Your task to perform on an android device: set default search engine in the chrome app Image 0: 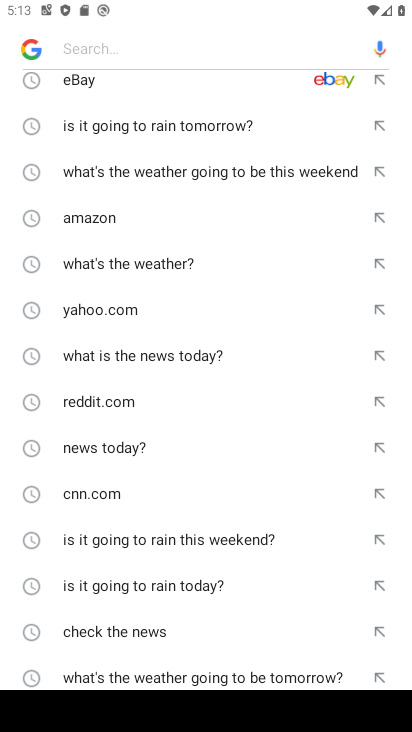
Step 0: press home button
Your task to perform on an android device: set default search engine in the chrome app Image 1: 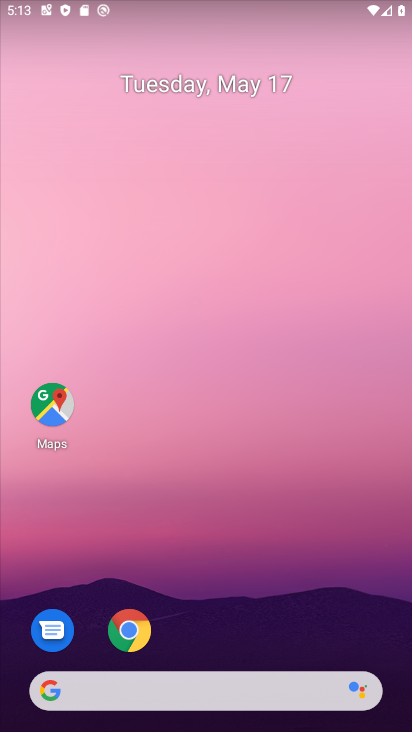
Step 1: click (128, 636)
Your task to perform on an android device: set default search engine in the chrome app Image 2: 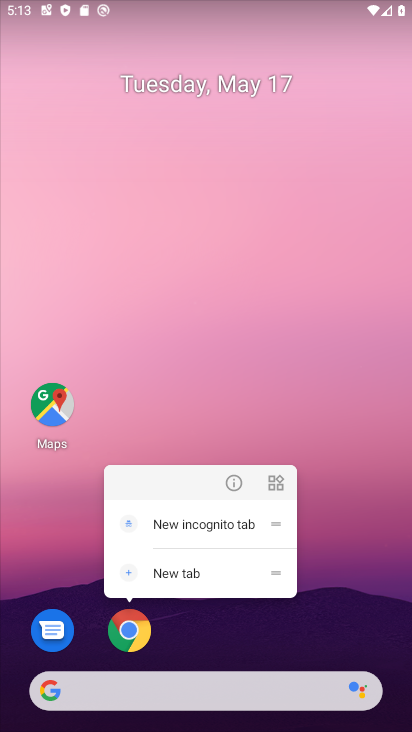
Step 2: click (127, 631)
Your task to perform on an android device: set default search engine in the chrome app Image 3: 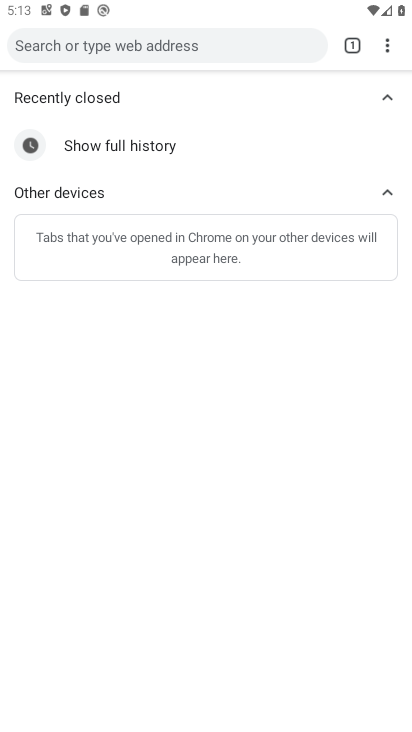
Step 3: drag from (384, 38) to (239, 379)
Your task to perform on an android device: set default search engine in the chrome app Image 4: 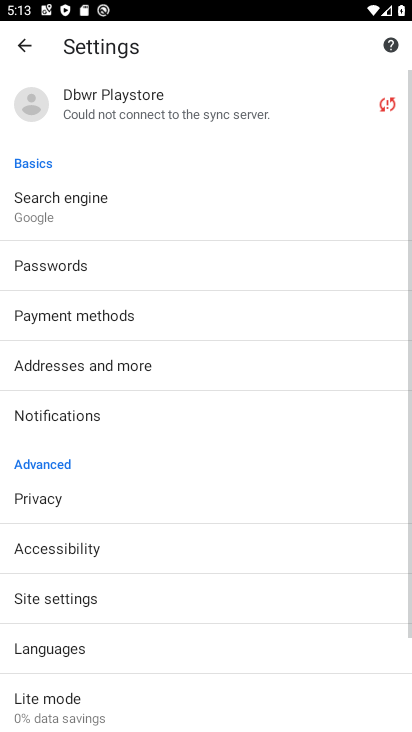
Step 4: click (144, 210)
Your task to perform on an android device: set default search engine in the chrome app Image 5: 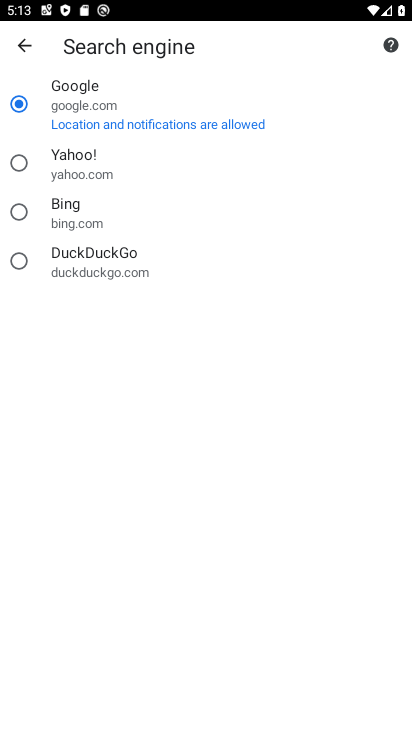
Step 5: task complete